Your task to perform on an android device: Open accessibility settings Image 0: 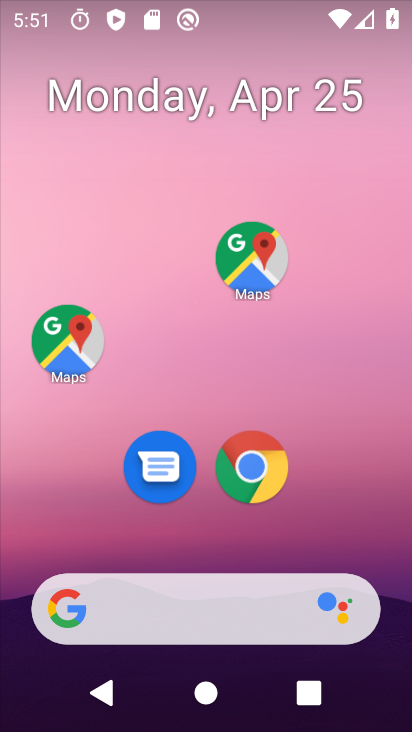
Step 0: drag from (337, 553) to (325, 6)
Your task to perform on an android device: Open accessibility settings Image 1: 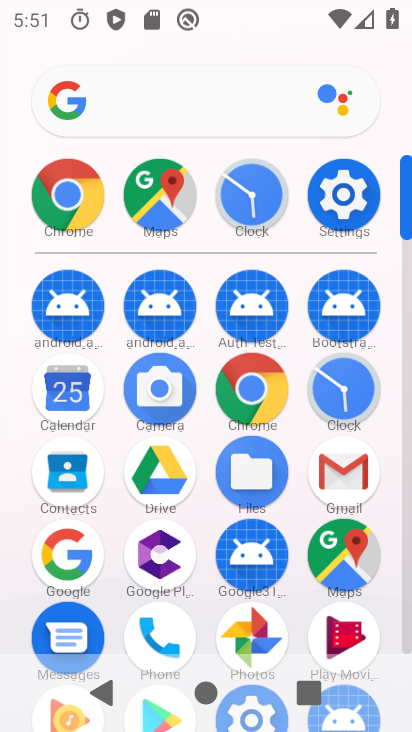
Step 1: drag from (291, 648) to (324, 121)
Your task to perform on an android device: Open accessibility settings Image 2: 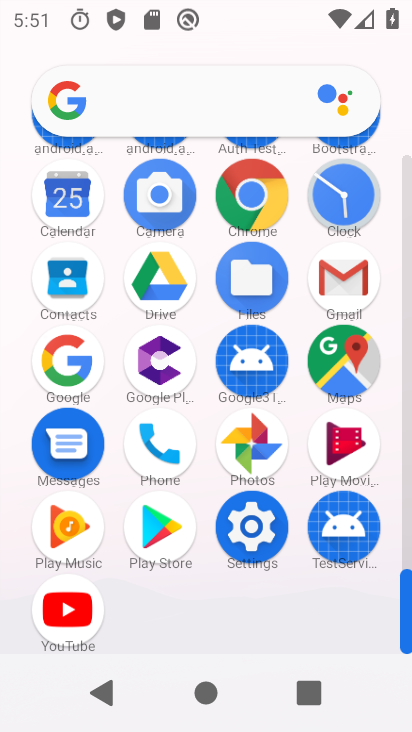
Step 2: click (249, 511)
Your task to perform on an android device: Open accessibility settings Image 3: 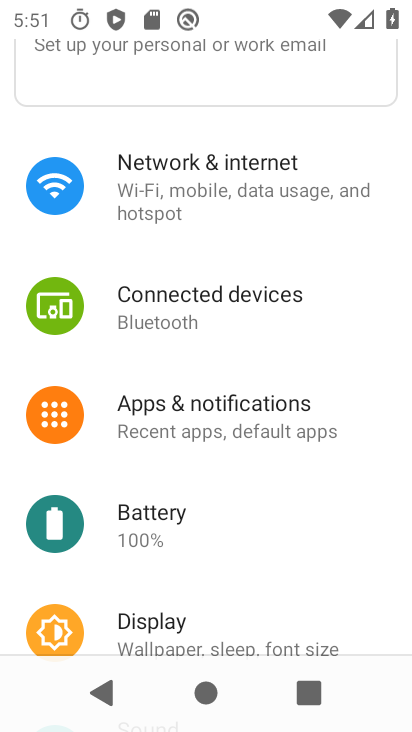
Step 3: drag from (279, 633) to (290, 53)
Your task to perform on an android device: Open accessibility settings Image 4: 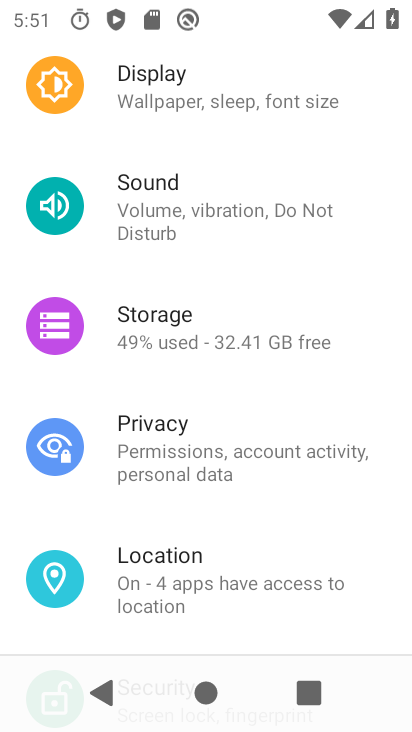
Step 4: drag from (272, 620) to (270, 173)
Your task to perform on an android device: Open accessibility settings Image 5: 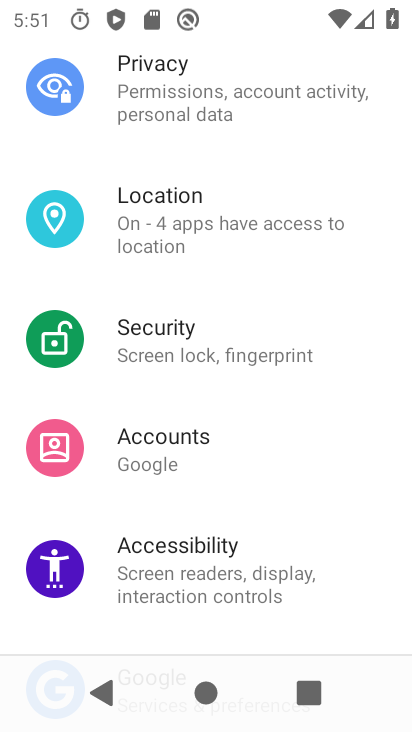
Step 5: click (276, 562)
Your task to perform on an android device: Open accessibility settings Image 6: 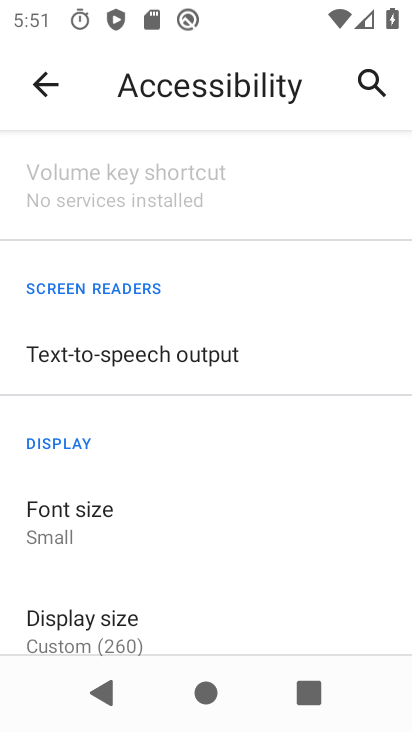
Step 6: task complete